Your task to perform on an android device: Open wifi settings Image 0: 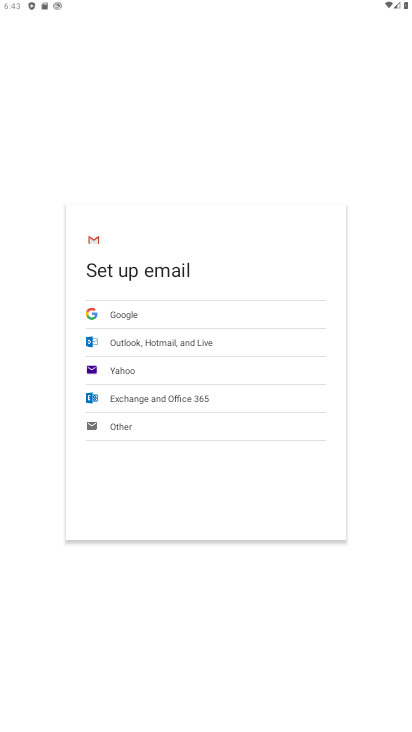
Step 0: press home button
Your task to perform on an android device: Open wifi settings Image 1: 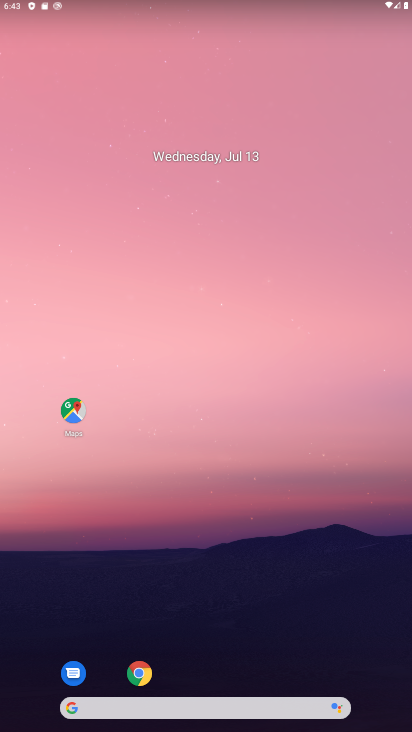
Step 1: drag from (338, 600) to (192, 4)
Your task to perform on an android device: Open wifi settings Image 2: 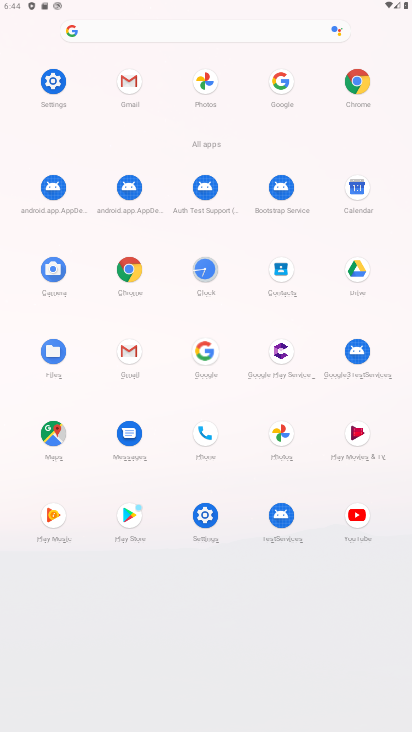
Step 2: click (213, 513)
Your task to perform on an android device: Open wifi settings Image 3: 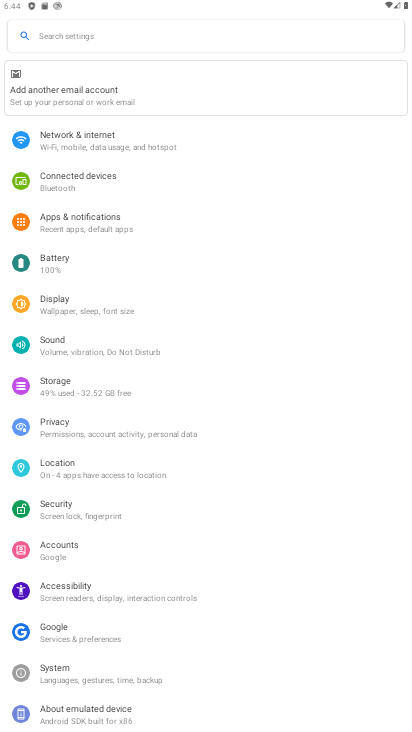
Step 3: click (140, 145)
Your task to perform on an android device: Open wifi settings Image 4: 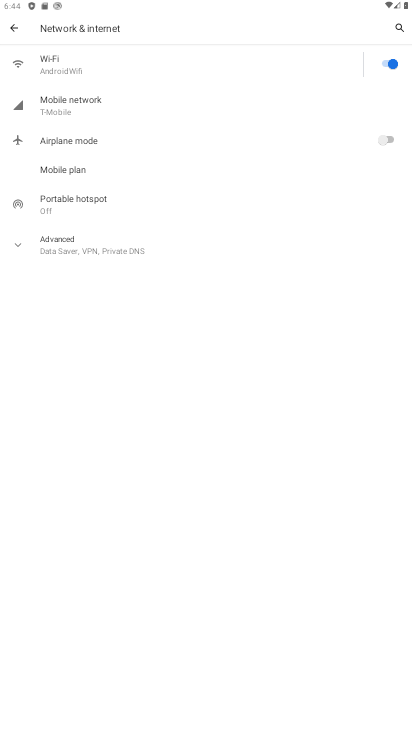
Step 4: click (91, 73)
Your task to perform on an android device: Open wifi settings Image 5: 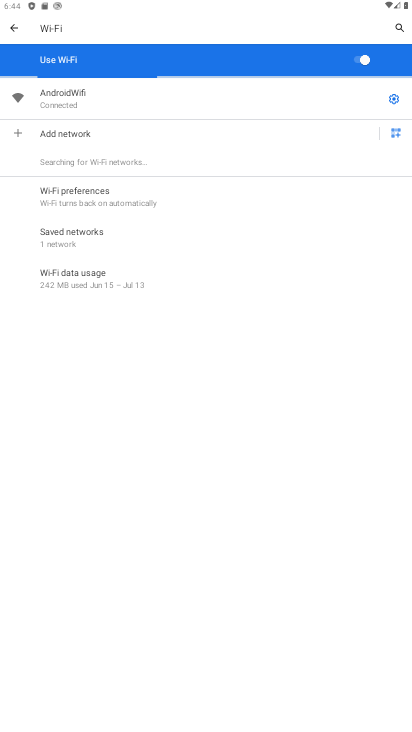
Step 5: task complete